Your task to perform on an android device: Clear all items from cart on walmart. Search for dell alienware on walmart, select the first entry, and add it to the cart. Image 0: 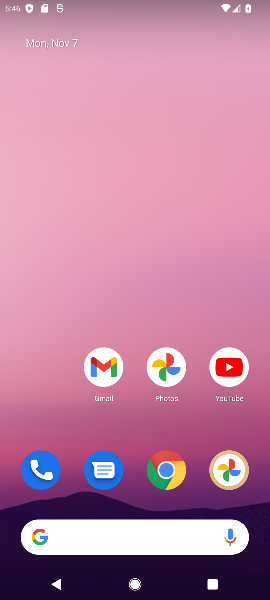
Step 0: click (154, 477)
Your task to perform on an android device: Clear all items from cart on walmart. Search for dell alienware on walmart, select the first entry, and add it to the cart. Image 1: 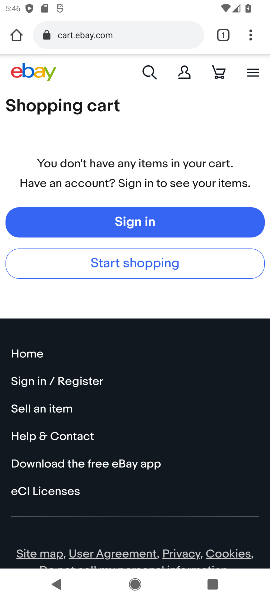
Step 1: click (167, 463)
Your task to perform on an android device: Clear all items from cart on walmart. Search for dell alienware on walmart, select the first entry, and add it to the cart. Image 2: 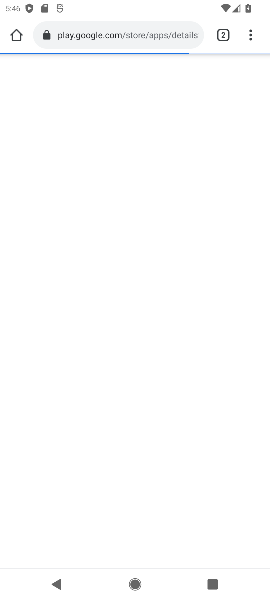
Step 2: task complete